Your task to perform on an android device: add a label to a message in the gmail app Image 0: 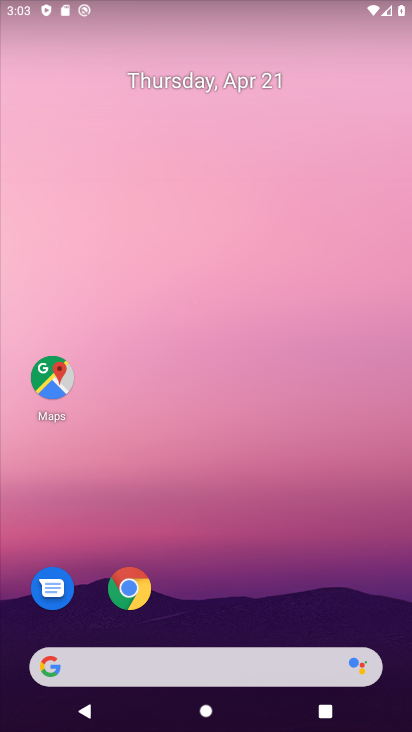
Step 0: drag from (247, 652) to (240, 224)
Your task to perform on an android device: add a label to a message in the gmail app Image 1: 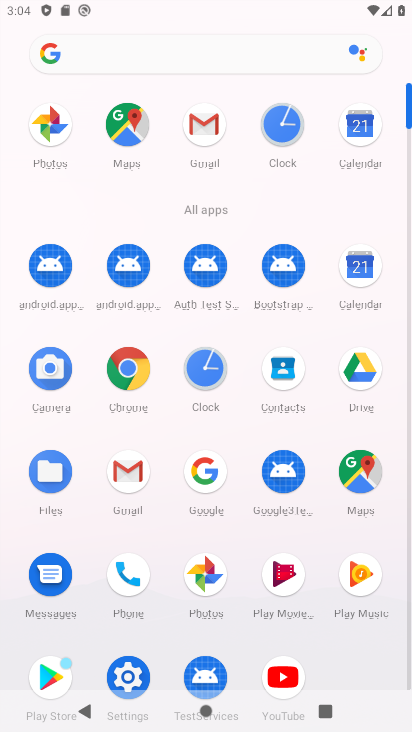
Step 1: click (116, 467)
Your task to perform on an android device: add a label to a message in the gmail app Image 2: 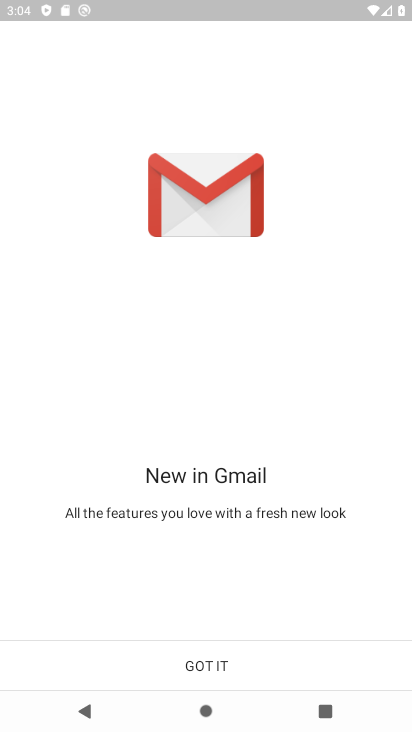
Step 2: click (212, 662)
Your task to perform on an android device: add a label to a message in the gmail app Image 3: 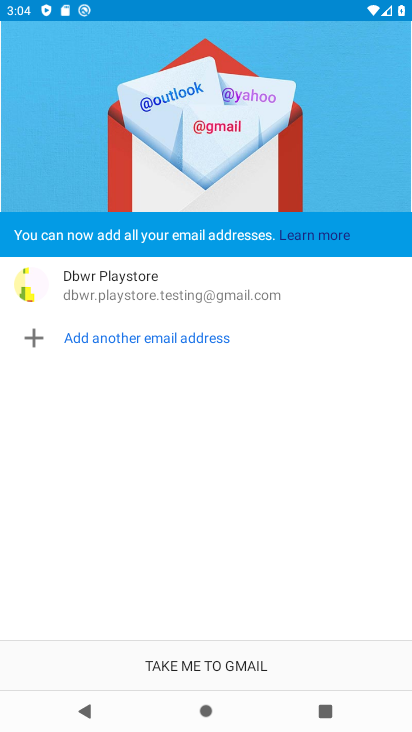
Step 3: click (240, 661)
Your task to perform on an android device: add a label to a message in the gmail app Image 4: 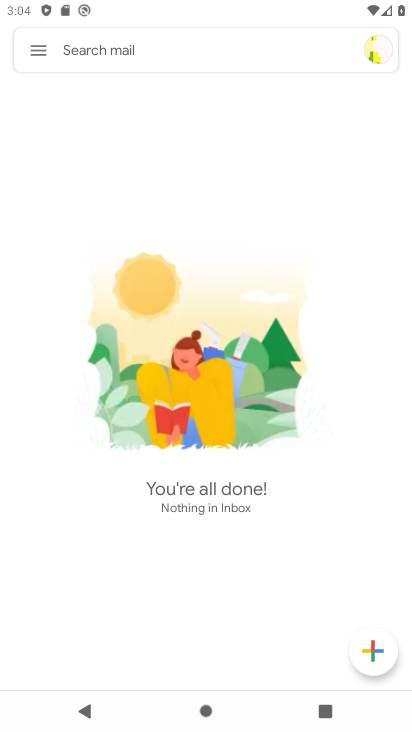
Step 4: task complete